Your task to perform on an android device: check out phone information Image 0: 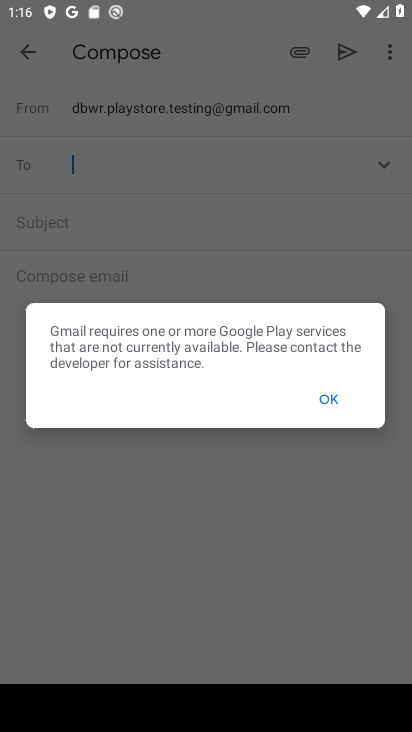
Step 0: press home button
Your task to perform on an android device: check out phone information Image 1: 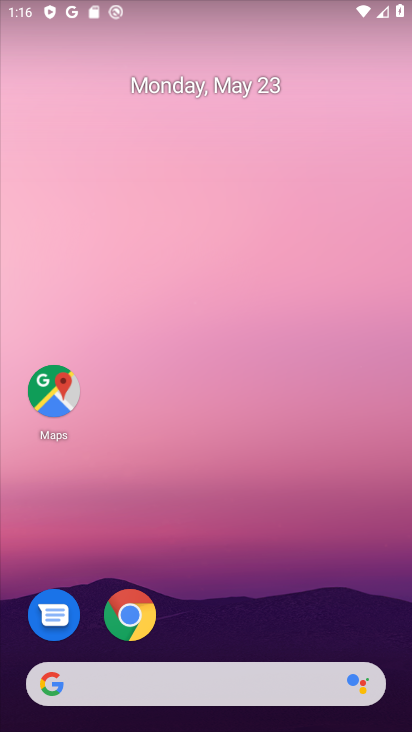
Step 1: drag from (219, 650) to (136, 142)
Your task to perform on an android device: check out phone information Image 2: 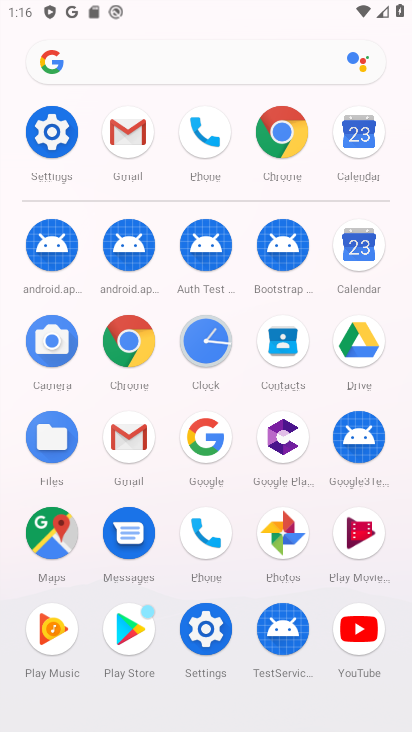
Step 2: click (60, 135)
Your task to perform on an android device: check out phone information Image 3: 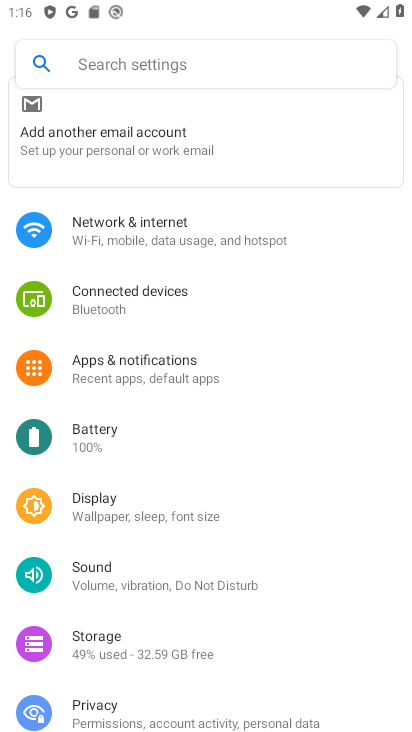
Step 3: task complete